Your task to perform on an android device: see creations saved in the google photos Image 0: 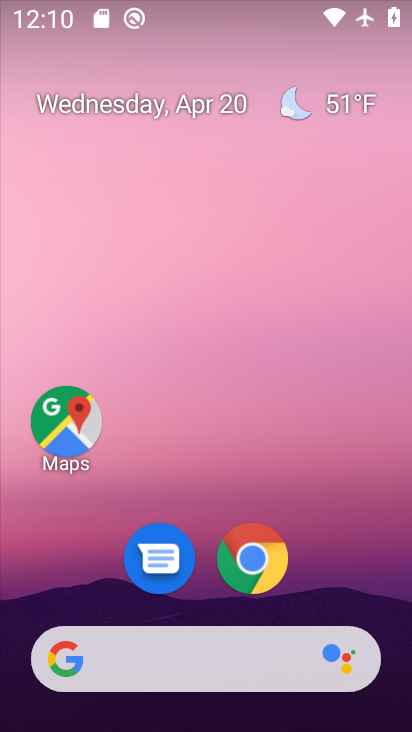
Step 0: drag from (392, 627) to (338, 123)
Your task to perform on an android device: see creations saved in the google photos Image 1: 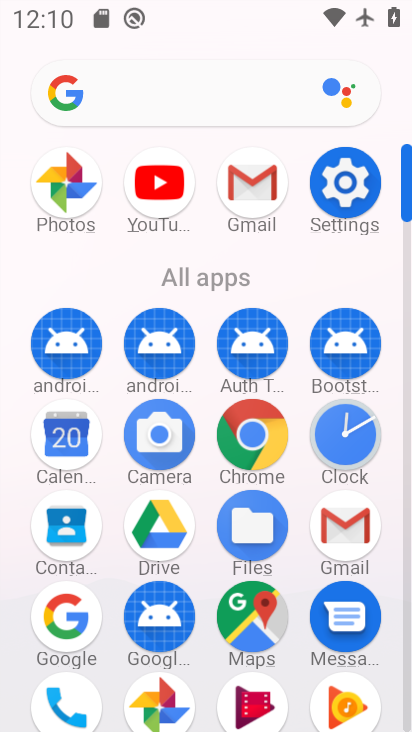
Step 1: click (407, 692)
Your task to perform on an android device: see creations saved in the google photos Image 2: 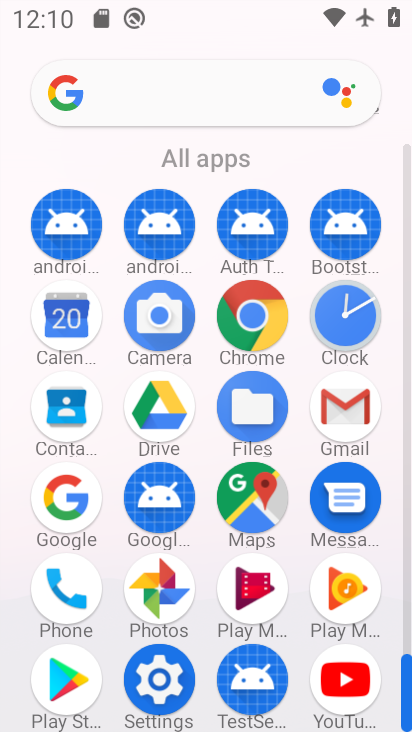
Step 2: click (156, 587)
Your task to perform on an android device: see creations saved in the google photos Image 3: 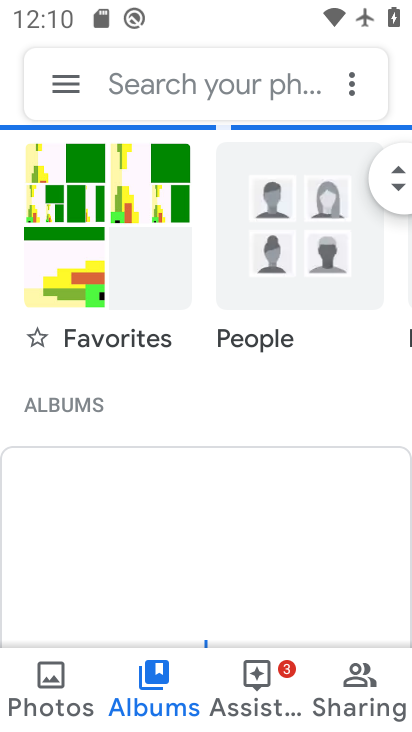
Step 3: click (50, 684)
Your task to perform on an android device: see creations saved in the google photos Image 4: 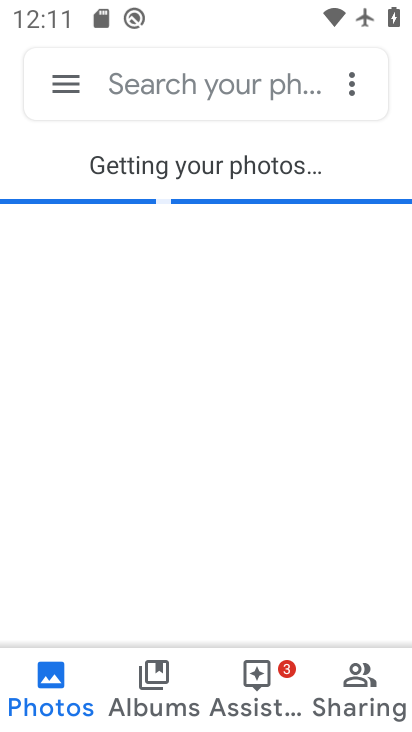
Step 4: click (153, 696)
Your task to perform on an android device: see creations saved in the google photos Image 5: 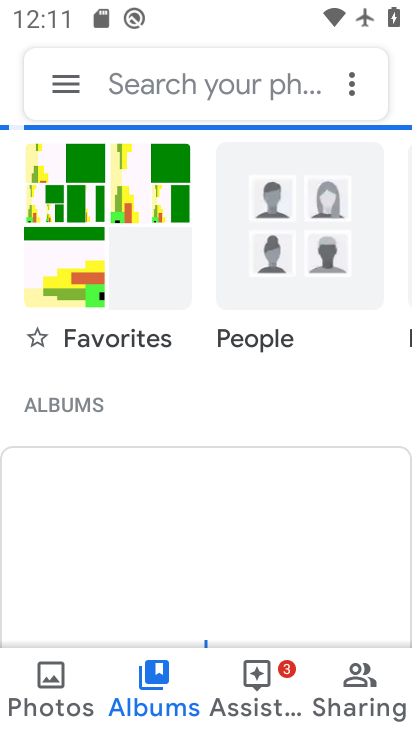
Step 5: drag from (242, 564) to (208, 170)
Your task to perform on an android device: see creations saved in the google photos Image 6: 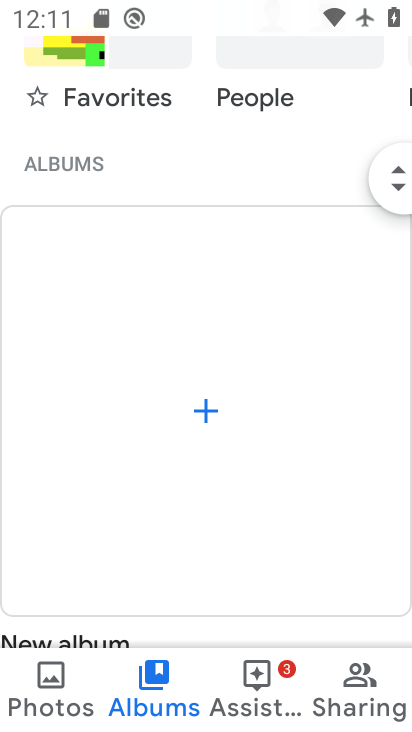
Step 6: drag from (197, 605) to (223, 137)
Your task to perform on an android device: see creations saved in the google photos Image 7: 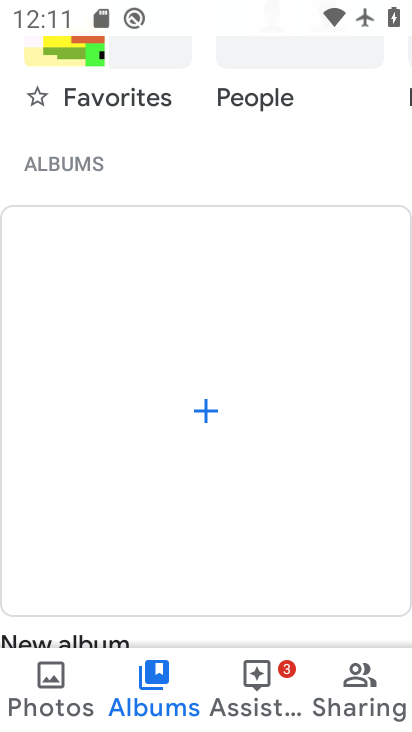
Step 7: drag from (196, 627) to (206, 121)
Your task to perform on an android device: see creations saved in the google photos Image 8: 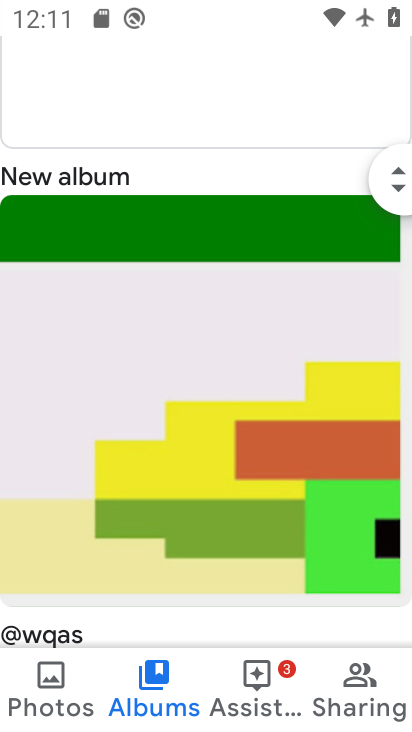
Step 8: drag from (199, 601) to (213, 203)
Your task to perform on an android device: see creations saved in the google photos Image 9: 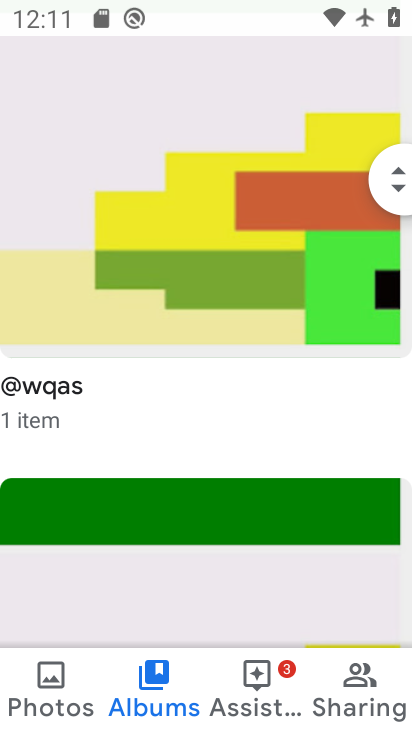
Step 9: drag from (199, 535) to (201, 127)
Your task to perform on an android device: see creations saved in the google photos Image 10: 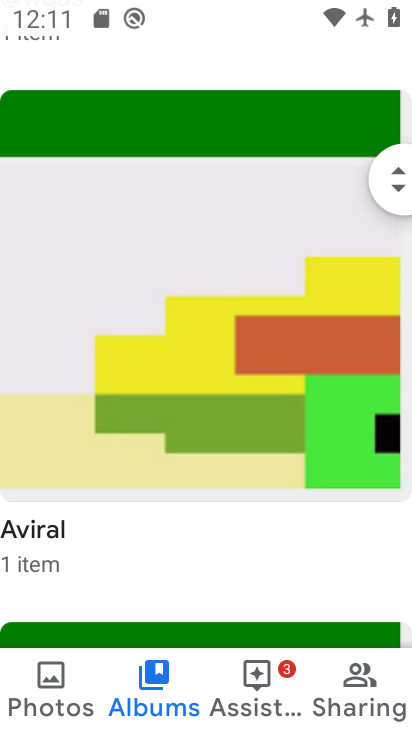
Step 10: drag from (204, 602) to (227, 191)
Your task to perform on an android device: see creations saved in the google photos Image 11: 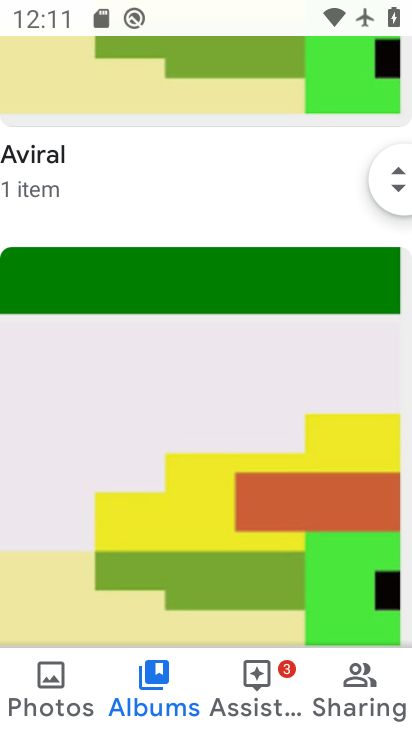
Step 11: click (50, 680)
Your task to perform on an android device: see creations saved in the google photos Image 12: 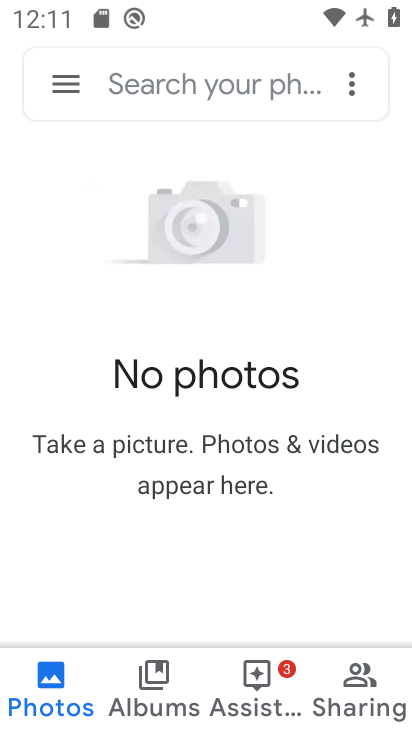
Step 12: task complete